Your task to perform on an android device: Open accessibility settings Image 0: 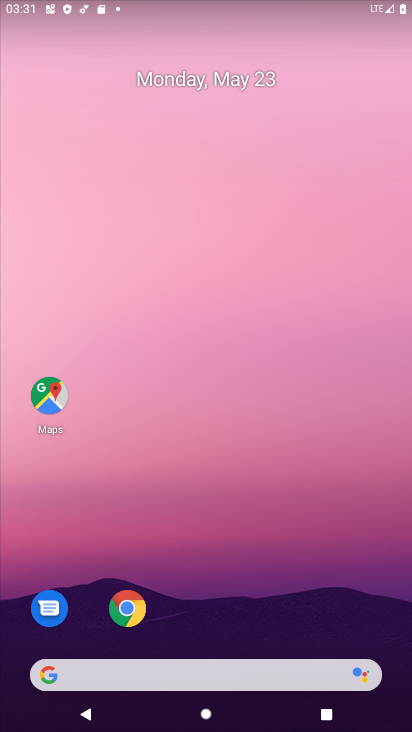
Step 0: drag from (272, 605) to (324, 8)
Your task to perform on an android device: Open accessibility settings Image 1: 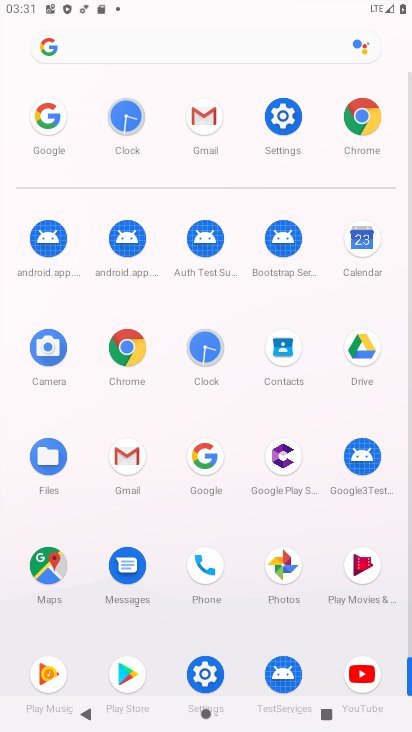
Step 1: click (284, 114)
Your task to perform on an android device: Open accessibility settings Image 2: 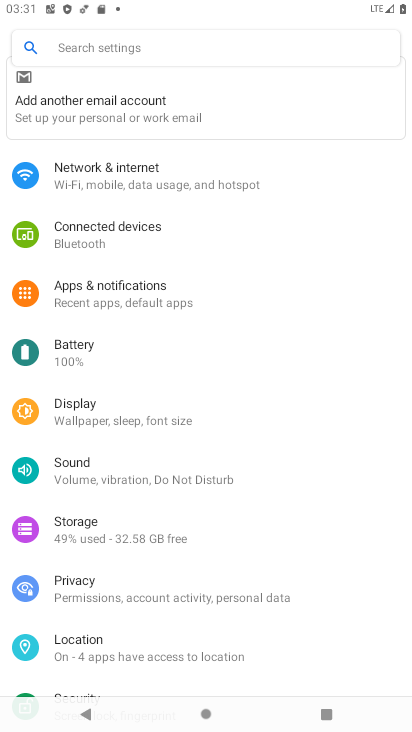
Step 2: drag from (105, 468) to (149, 401)
Your task to perform on an android device: Open accessibility settings Image 3: 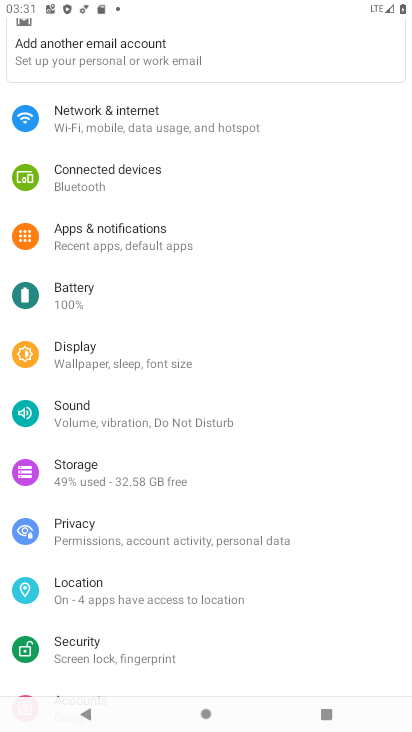
Step 3: drag from (74, 512) to (110, 453)
Your task to perform on an android device: Open accessibility settings Image 4: 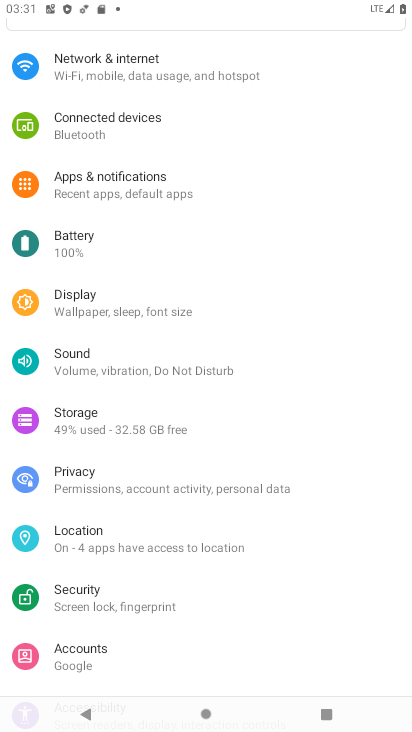
Step 4: drag from (66, 563) to (140, 480)
Your task to perform on an android device: Open accessibility settings Image 5: 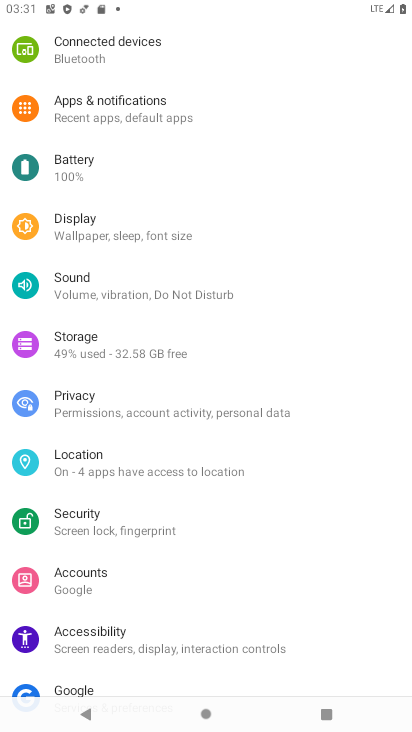
Step 5: drag from (91, 552) to (165, 470)
Your task to perform on an android device: Open accessibility settings Image 6: 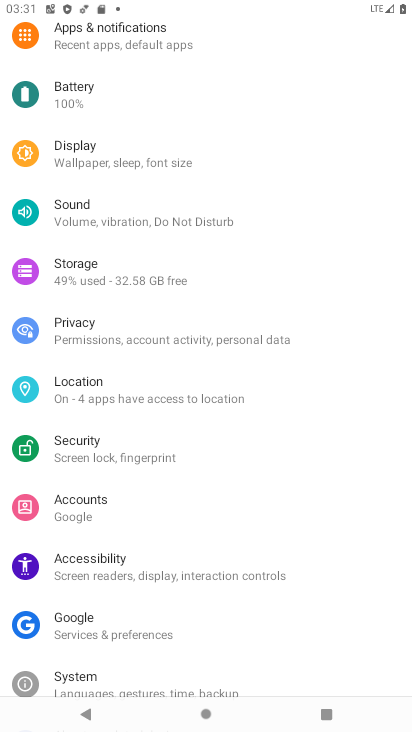
Step 6: click (103, 560)
Your task to perform on an android device: Open accessibility settings Image 7: 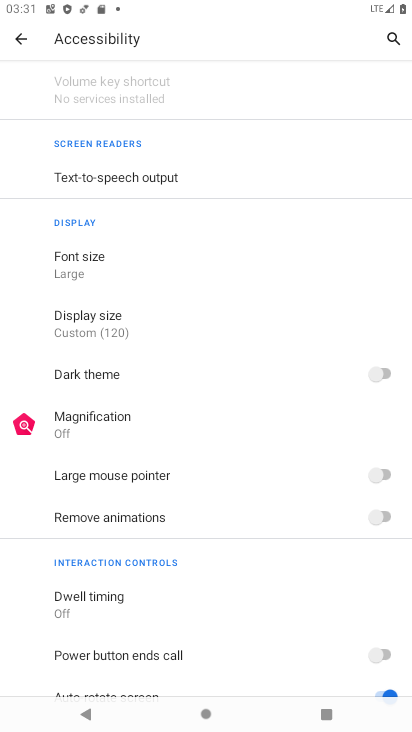
Step 7: task complete